Your task to perform on an android device: Open the calendar and show me this week's events Image 0: 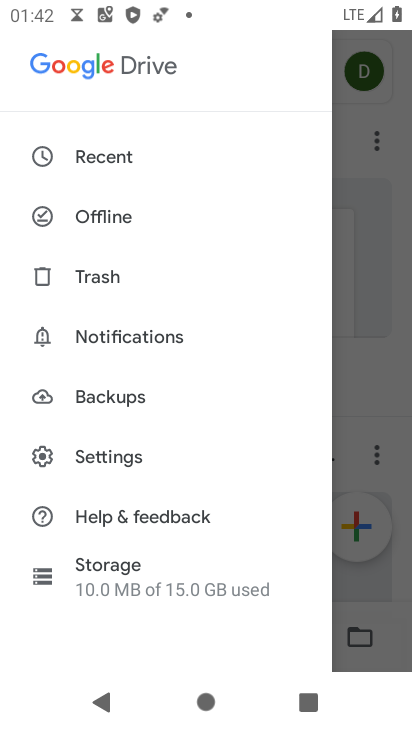
Step 0: click (254, 531)
Your task to perform on an android device: Open the calendar and show me this week's events Image 1: 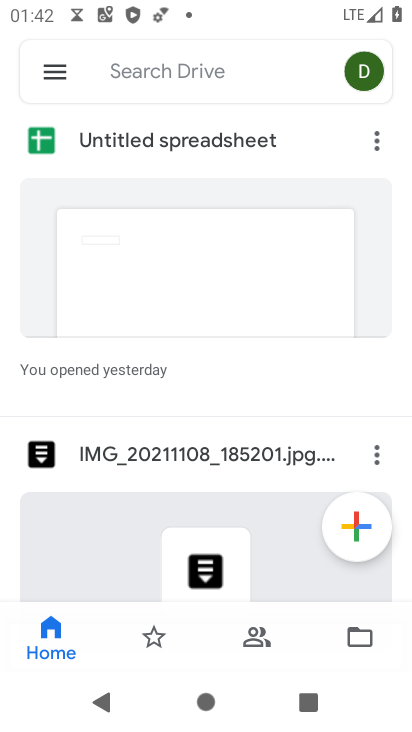
Step 1: press home button
Your task to perform on an android device: Open the calendar and show me this week's events Image 2: 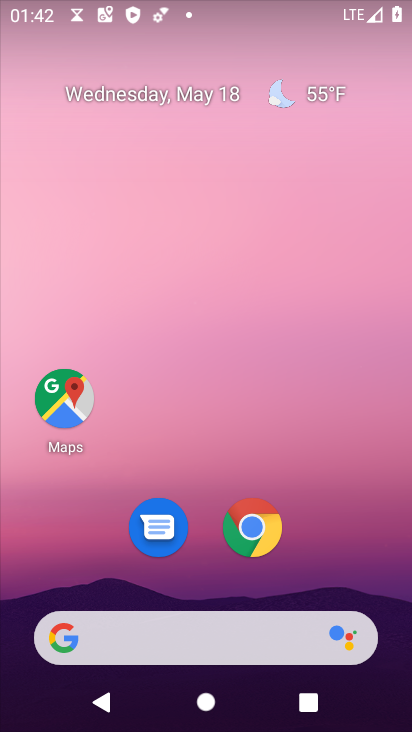
Step 2: click (164, 89)
Your task to perform on an android device: Open the calendar and show me this week's events Image 3: 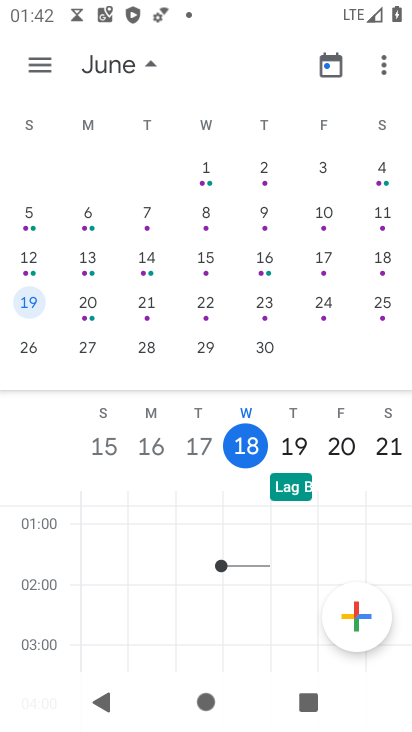
Step 3: click (126, 65)
Your task to perform on an android device: Open the calendar and show me this week's events Image 4: 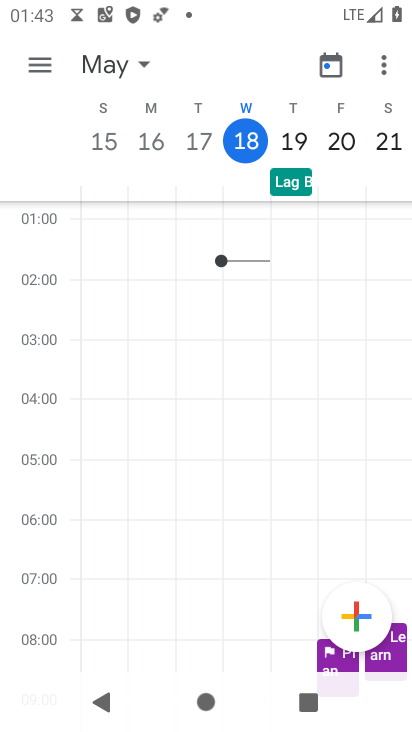
Step 4: click (124, 62)
Your task to perform on an android device: Open the calendar and show me this week's events Image 5: 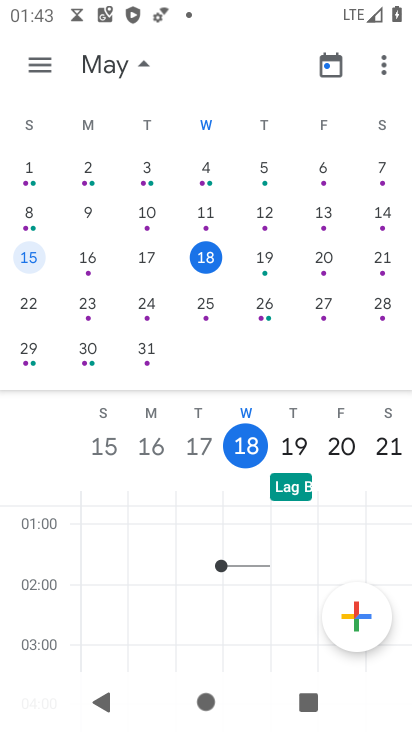
Step 5: task complete